Your task to perform on an android device: Clear all items from cart on costco. Image 0: 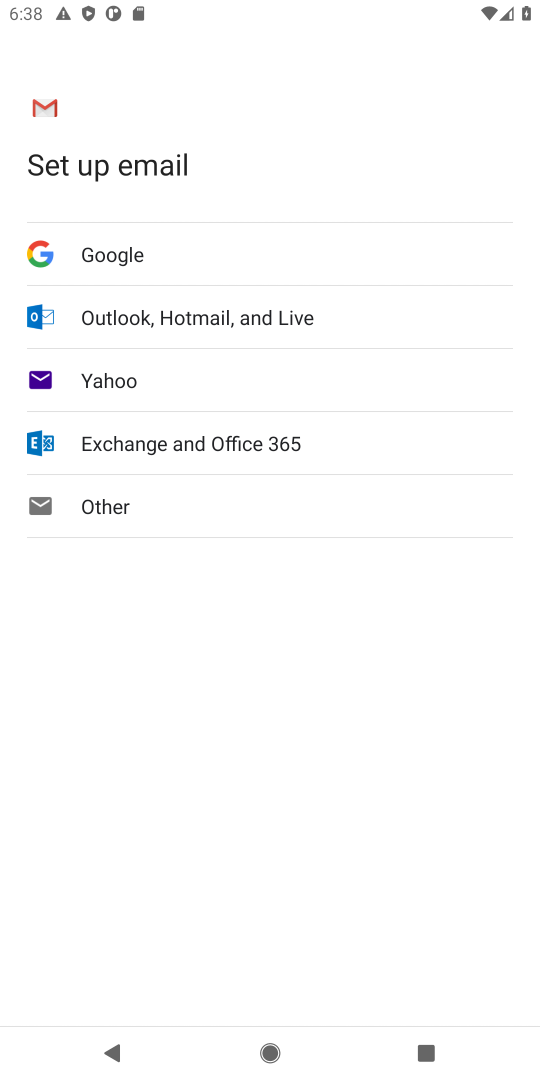
Step 0: press home button
Your task to perform on an android device: Clear all items from cart on costco. Image 1: 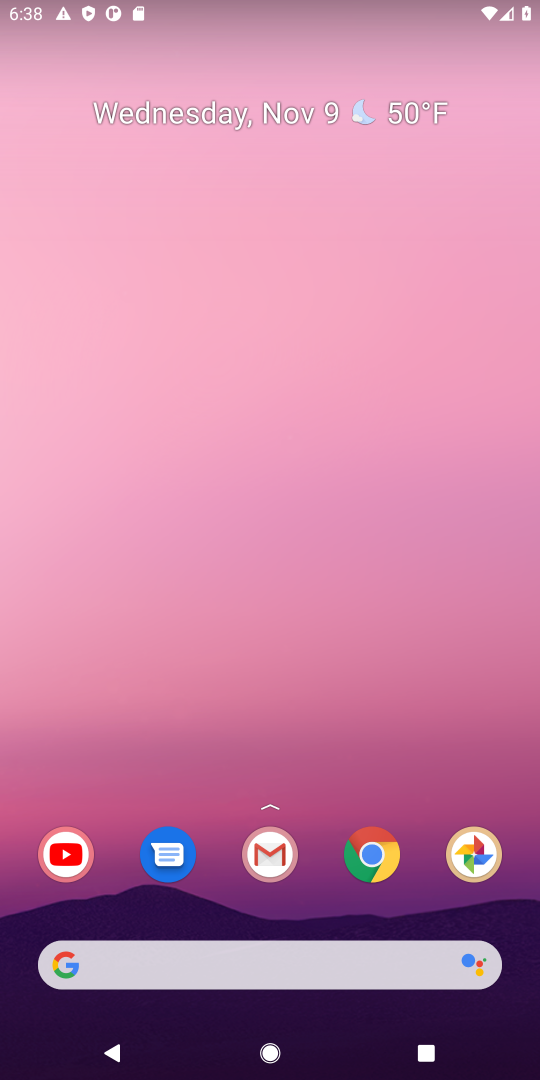
Step 1: click (239, 973)
Your task to perform on an android device: Clear all items from cart on costco. Image 2: 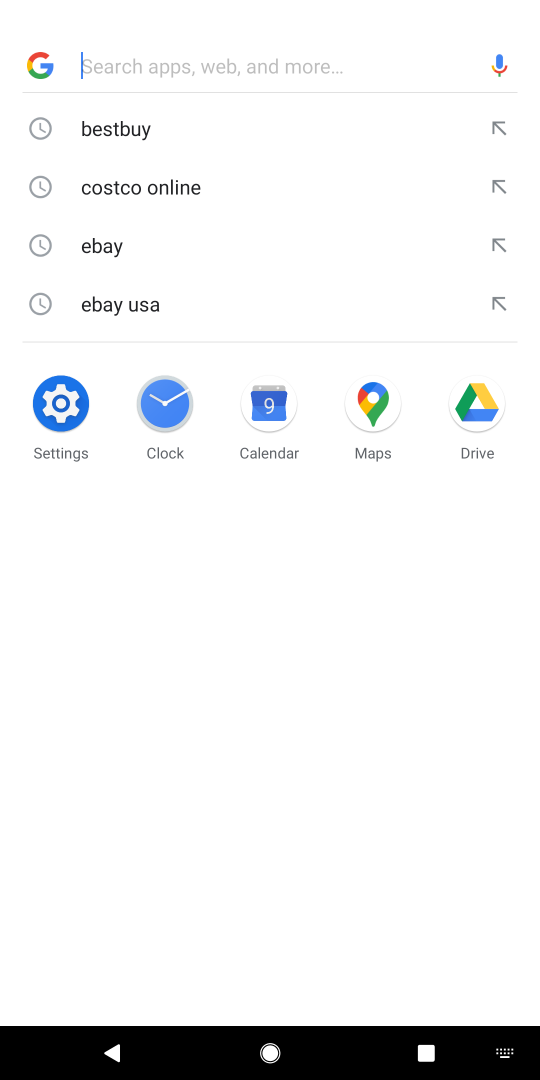
Step 2: click (201, 197)
Your task to perform on an android device: Clear all items from cart on costco. Image 3: 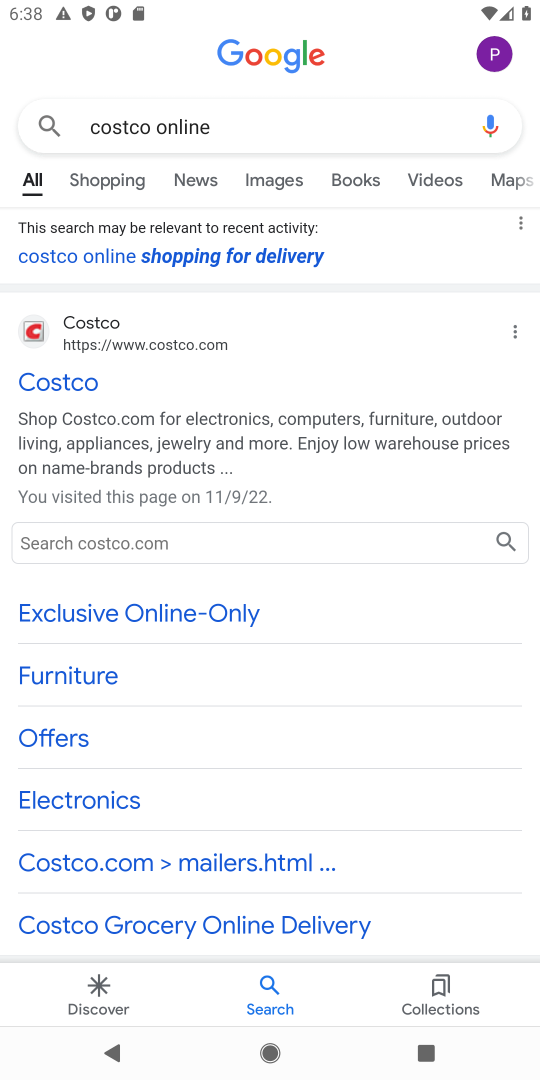
Step 3: click (22, 376)
Your task to perform on an android device: Clear all items from cart on costco. Image 4: 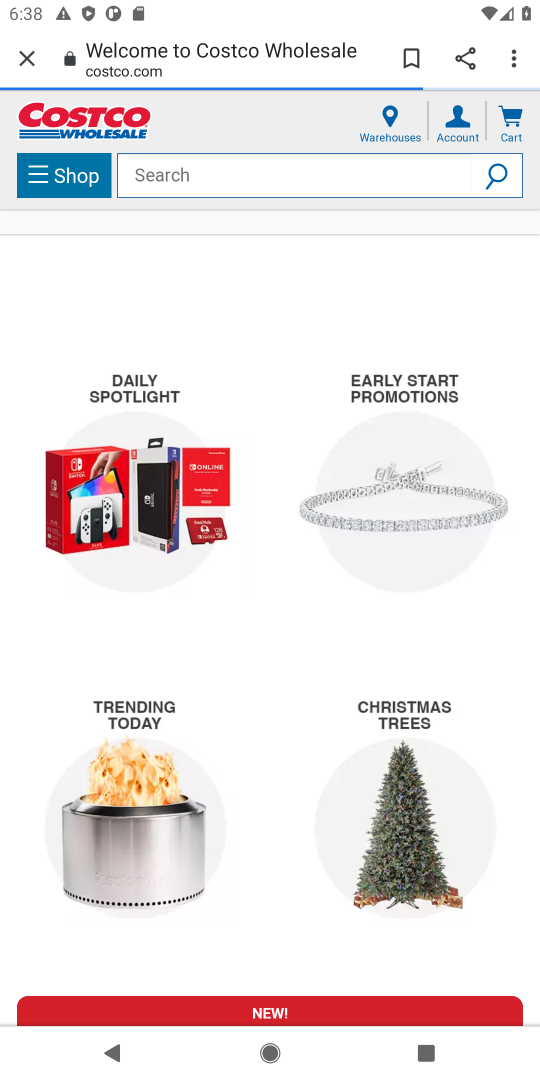
Step 4: click (256, 174)
Your task to perform on an android device: Clear all items from cart on costco. Image 5: 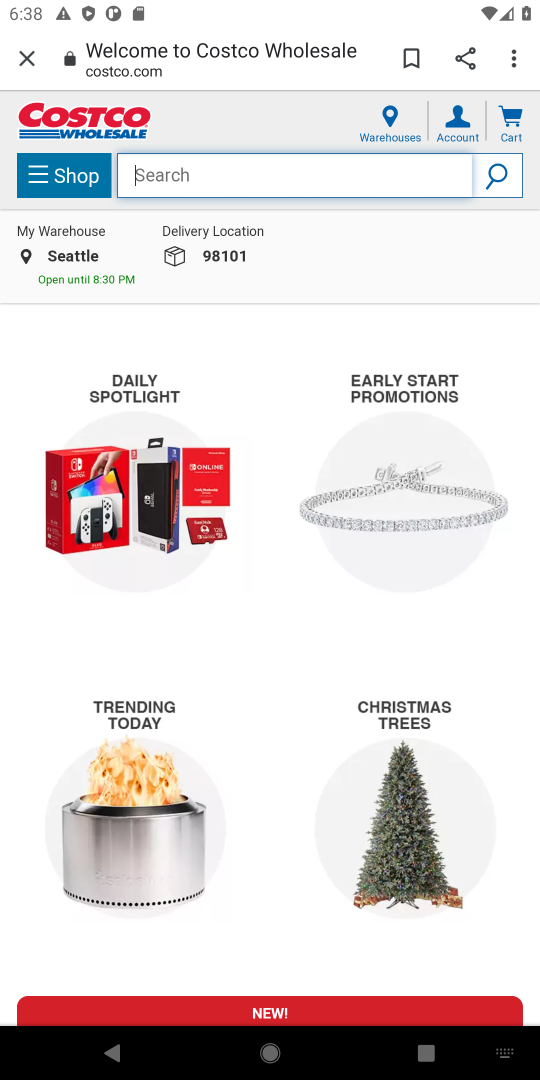
Step 5: click (522, 123)
Your task to perform on an android device: Clear all items from cart on costco. Image 6: 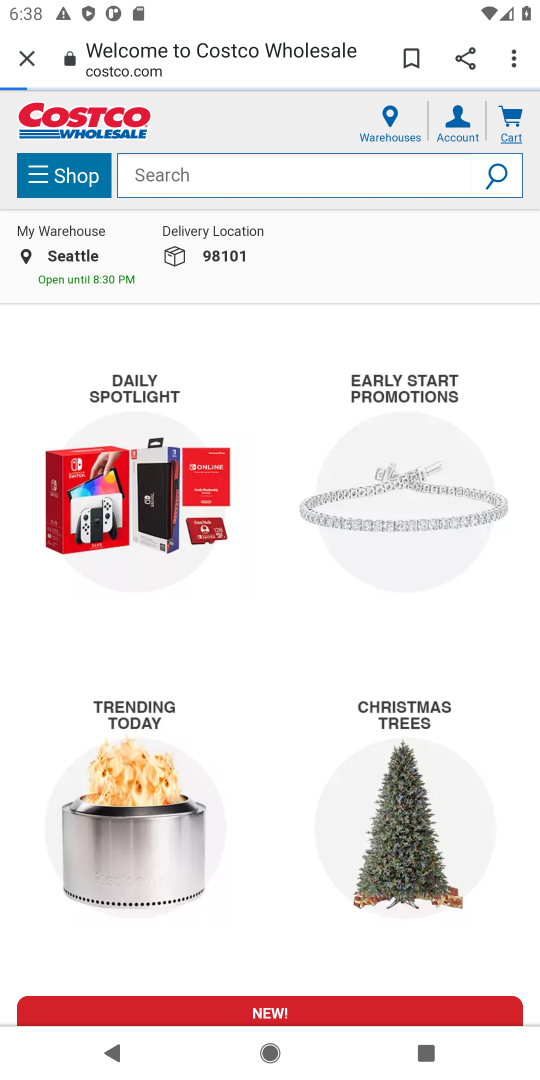
Step 6: task complete